Your task to perform on an android device: Search for "razer nari" on ebay.com, select the first entry, and add it to the cart. Image 0: 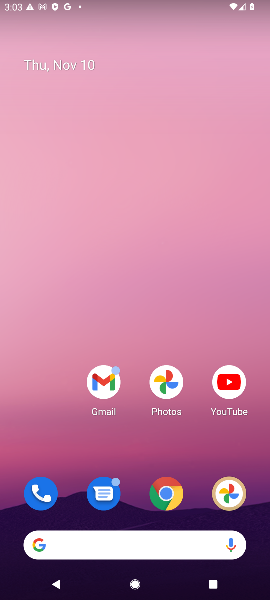
Step 0: drag from (107, 526) to (135, 73)
Your task to perform on an android device: Search for "razer nari" on ebay.com, select the first entry, and add it to the cart. Image 1: 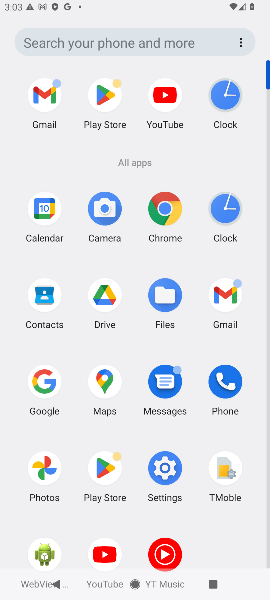
Step 1: click (41, 371)
Your task to perform on an android device: Search for "razer nari" on ebay.com, select the first entry, and add it to the cart. Image 2: 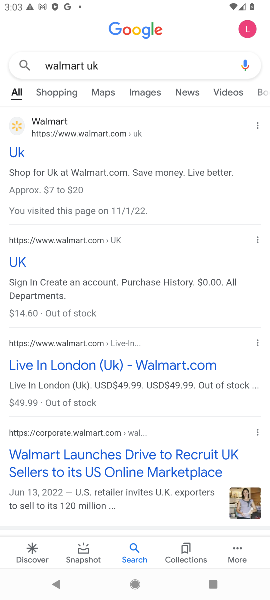
Step 2: click (136, 60)
Your task to perform on an android device: Search for "razer nari" on ebay.com, select the first entry, and add it to the cart. Image 3: 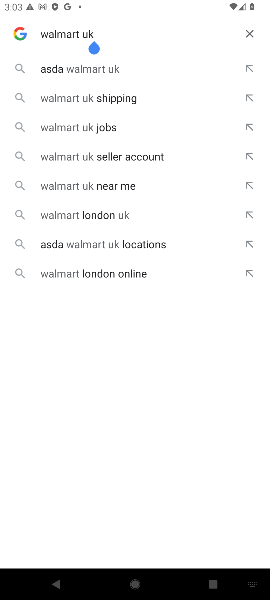
Step 3: click (242, 33)
Your task to perform on an android device: Search for "razer nari" on ebay.com, select the first entry, and add it to the cart. Image 4: 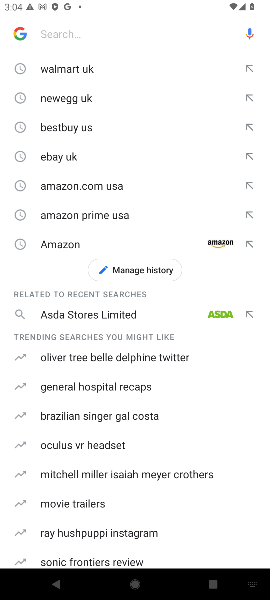
Step 4: click (50, 161)
Your task to perform on an android device: Search for "razer nari" on ebay.com, select the first entry, and add it to the cart. Image 5: 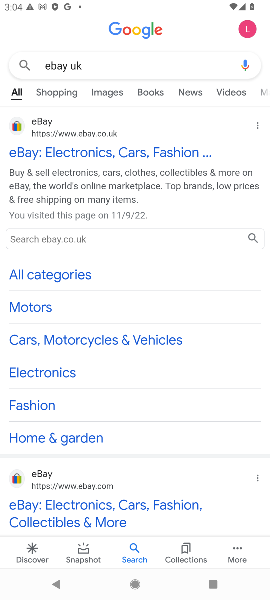
Step 5: click (13, 124)
Your task to perform on an android device: Search for "razer nari" on ebay.com, select the first entry, and add it to the cart. Image 6: 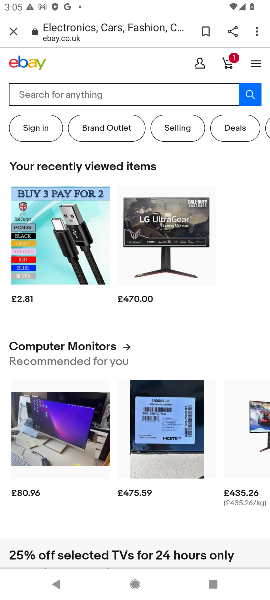
Step 6: click (116, 87)
Your task to perform on an android device: Search for "razer nari" on ebay.com, select the first entry, and add it to the cart. Image 7: 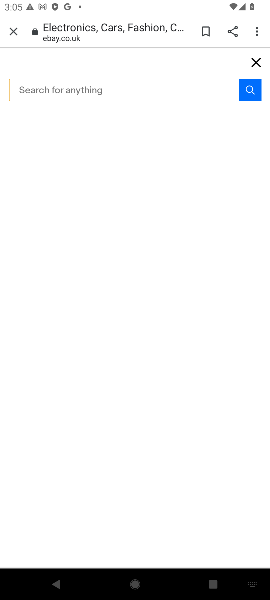
Step 7: type ""razer nari" "
Your task to perform on an android device: Search for "razer nari" on ebay.com, select the first entry, and add it to the cart. Image 8: 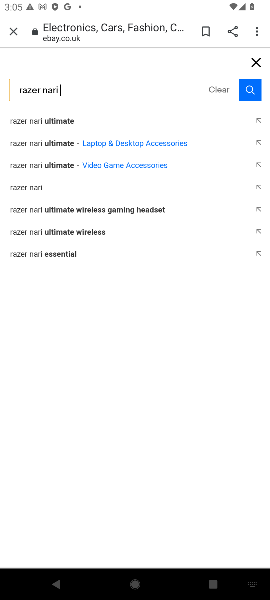
Step 8: click (40, 187)
Your task to perform on an android device: Search for "razer nari" on ebay.com, select the first entry, and add it to the cart. Image 9: 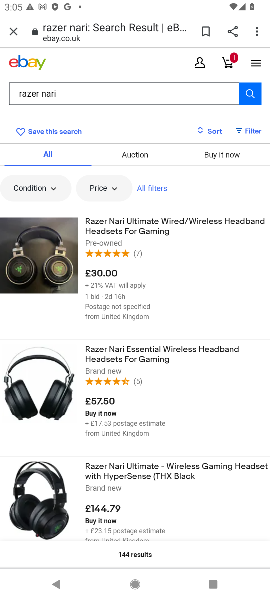
Step 9: click (123, 218)
Your task to perform on an android device: Search for "razer nari" on ebay.com, select the first entry, and add it to the cart. Image 10: 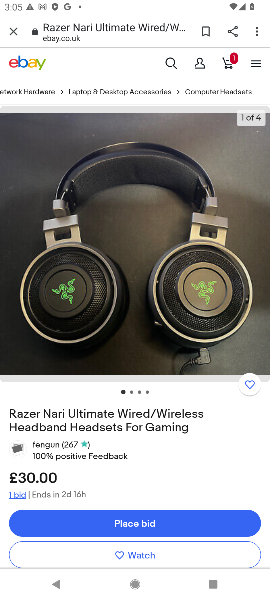
Step 10: drag from (168, 499) to (173, 317)
Your task to perform on an android device: Search for "razer nari" on ebay.com, select the first entry, and add it to the cart. Image 11: 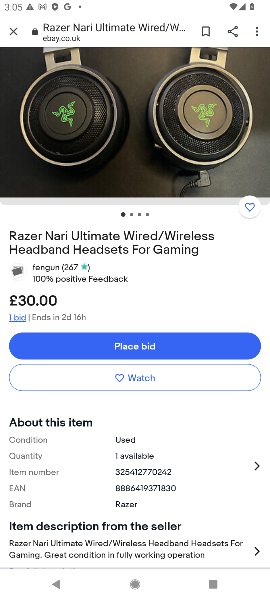
Step 11: drag from (171, 521) to (181, 358)
Your task to perform on an android device: Search for "razer nari" on ebay.com, select the first entry, and add it to the cart. Image 12: 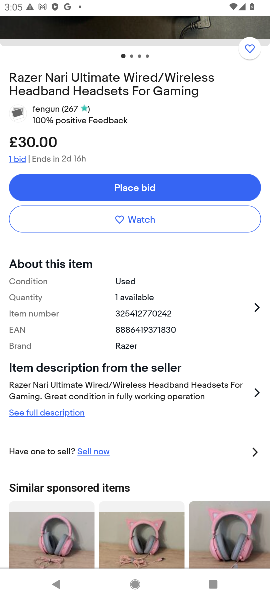
Step 12: click (119, 179)
Your task to perform on an android device: Search for "razer nari" on ebay.com, select the first entry, and add it to the cart. Image 13: 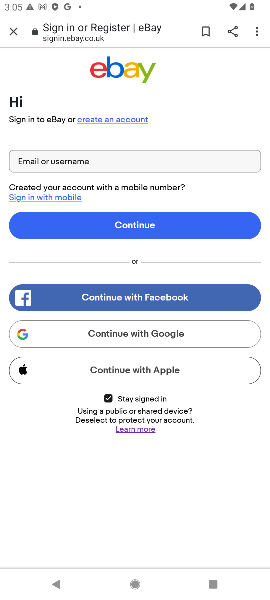
Step 13: press back button
Your task to perform on an android device: Search for "razer nari" on ebay.com, select the first entry, and add it to the cart. Image 14: 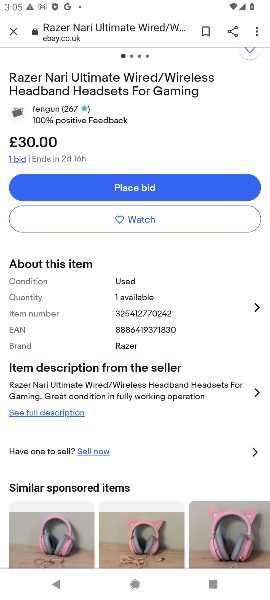
Step 14: press back button
Your task to perform on an android device: Search for "razer nari" on ebay.com, select the first entry, and add it to the cart. Image 15: 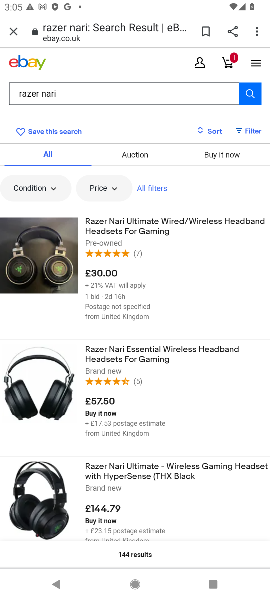
Step 15: click (131, 355)
Your task to perform on an android device: Search for "razer nari" on ebay.com, select the first entry, and add it to the cart. Image 16: 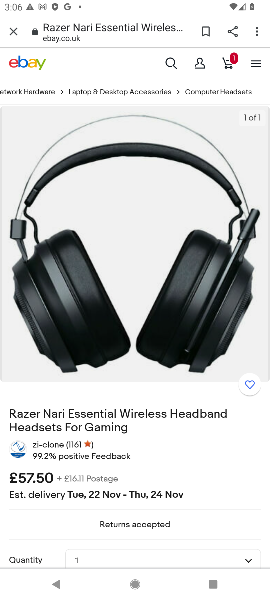
Step 16: drag from (154, 429) to (126, 186)
Your task to perform on an android device: Search for "razer nari" on ebay.com, select the first entry, and add it to the cart. Image 17: 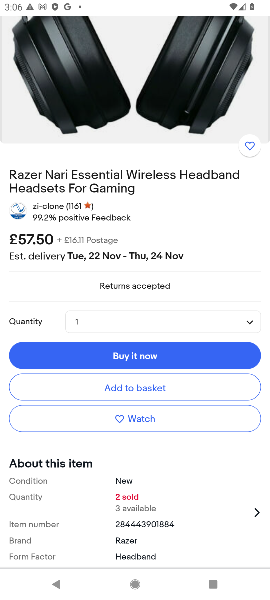
Step 17: click (139, 388)
Your task to perform on an android device: Search for "razer nari" on ebay.com, select the first entry, and add it to the cart. Image 18: 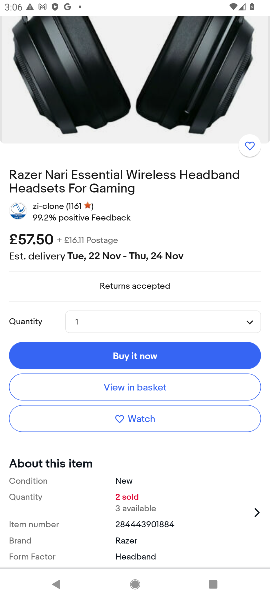
Step 18: task complete